Your task to perform on an android device: Is it going to rain today? Image 0: 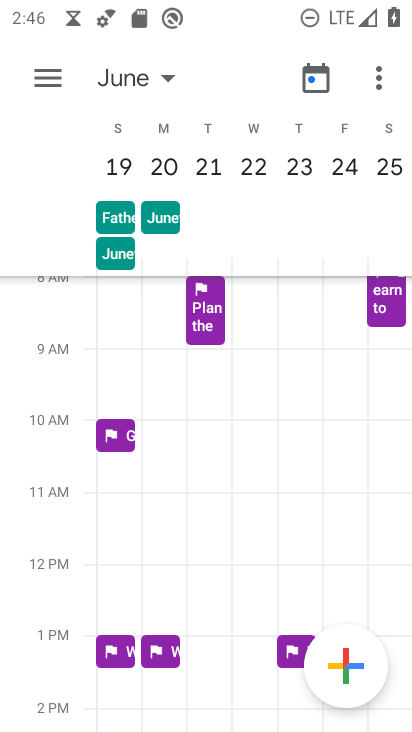
Step 0: press home button
Your task to perform on an android device: Is it going to rain today? Image 1: 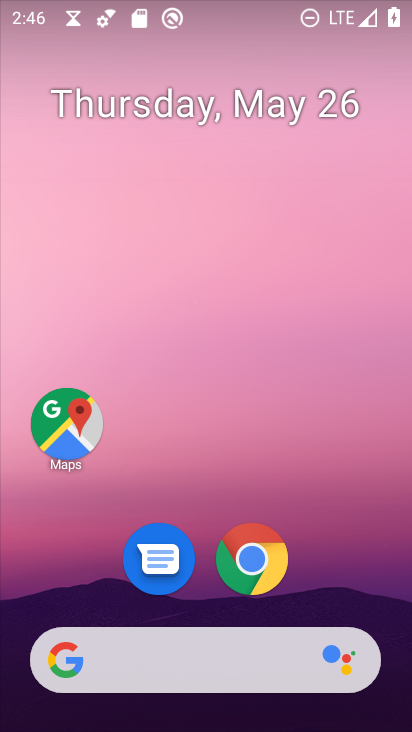
Step 1: click (72, 666)
Your task to perform on an android device: Is it going to rain today? Image 2: 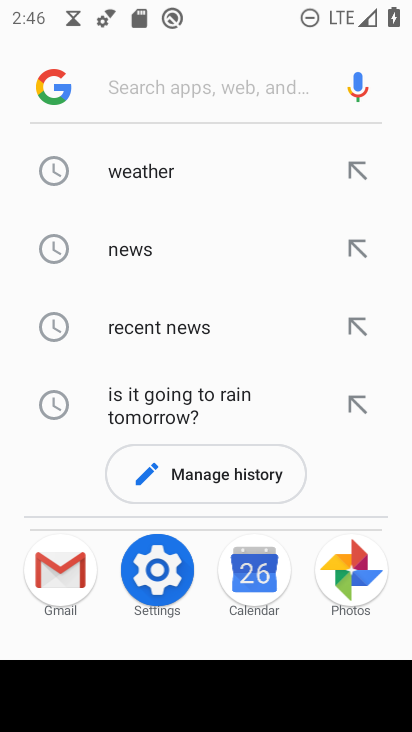
Step 2: click (148, 168)
Your task to perform on an android device: Is it going to rain today? Image 3: 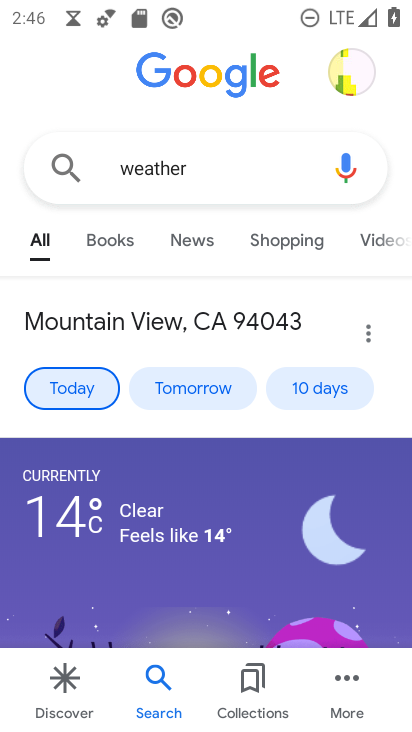
Step 3: task complete